Your task to perform on an android device: turn off translation in the chrome app Image 0: 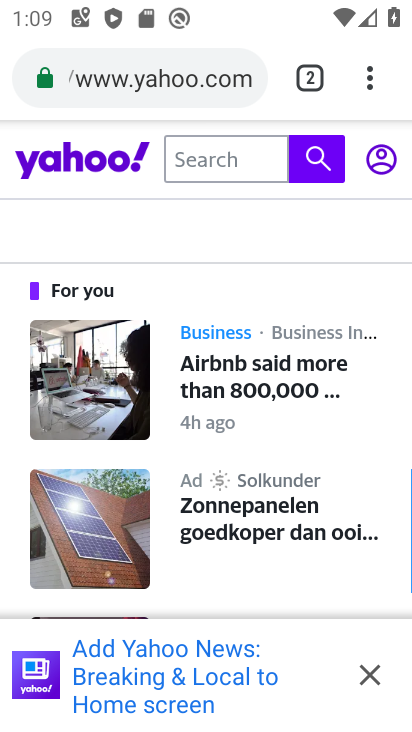
Step 0: press home button
Your task to perform on an android device: turn off translation in the chrome app Image 1: 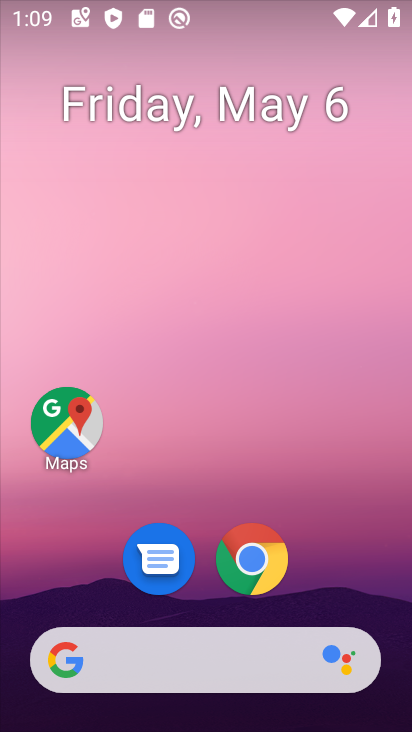
Step 1: click (251, 575)
Your task to perform on an android device: turn off translation in the chrome app Image 2: 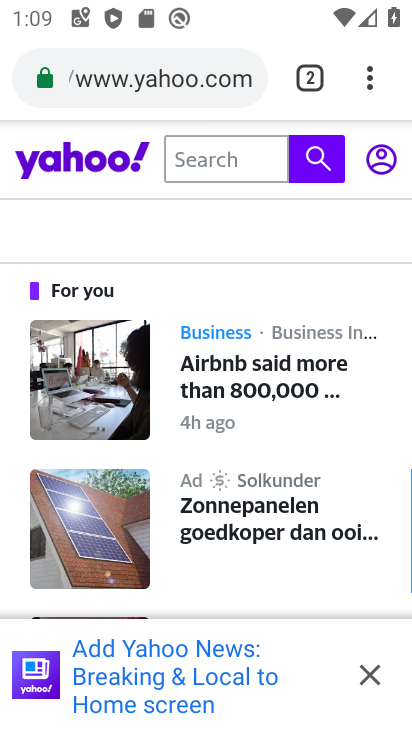
Step 2: drag from (369, 80) to (143, 605)
Your task to perform on an android device: turn off translation in the chrome app Image 3: 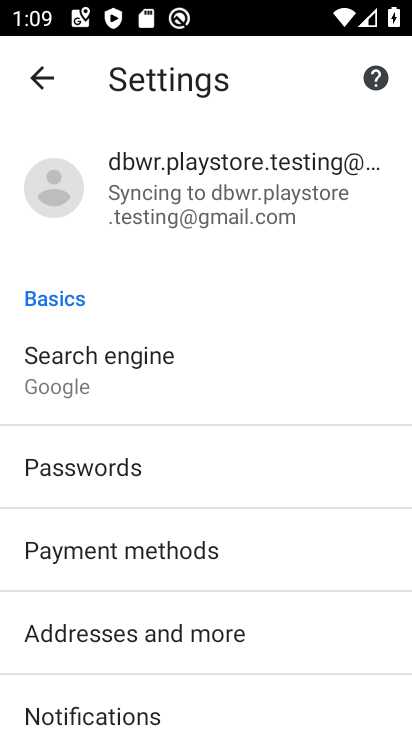
Step 3: drag from (178, 651) to (382, 165)
Your task to perform on an android device: turn off translation in the chrome app Image 4: 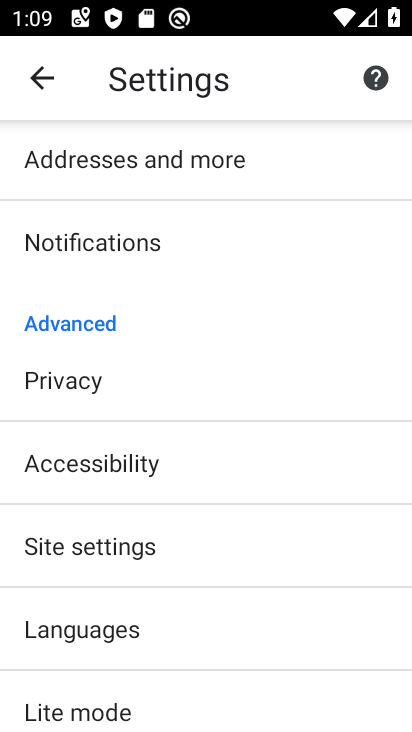
Step 4: click (150, 628)
Your task to perform on an android device: turn off translation in the chrome app Image 5: 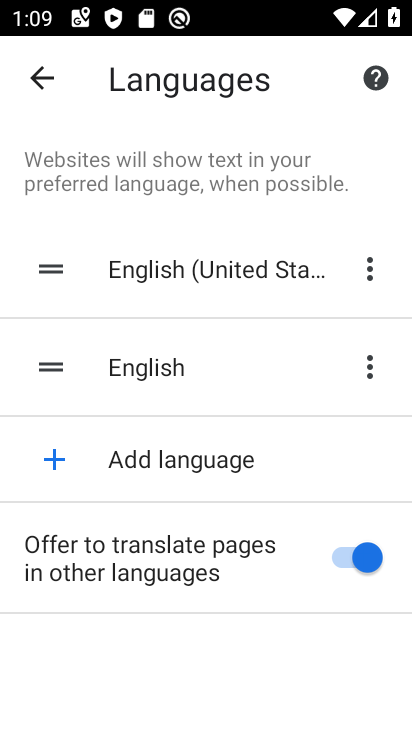
Step 5: click (343, 560)
Your task to perform on an android device: turn off translation in the chrome app Image 6: 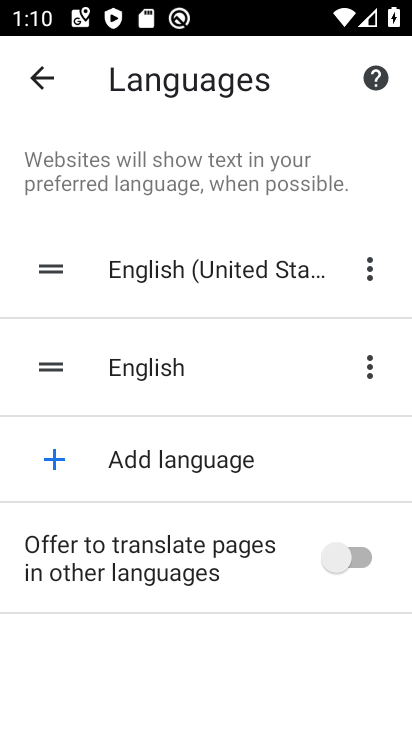
Step 6: task complete